Your task to perform on an android device: Open settings on Google Maps Image 0: 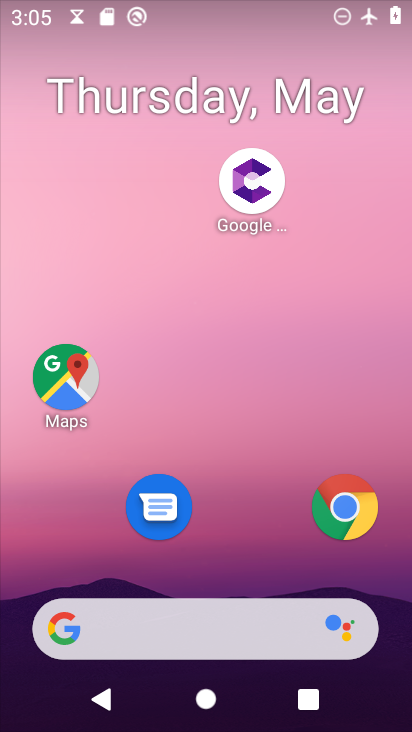
Step 0: click (53, 376)
Your task to perform on an android device: Open settings on Google Maps Image 1: 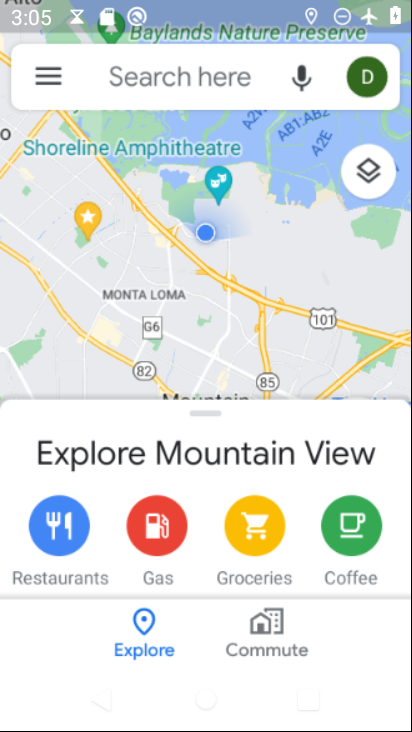
Step 1: click (32, 89)
Your task to perform on an android device: Open settings on Google Maps Image 2: 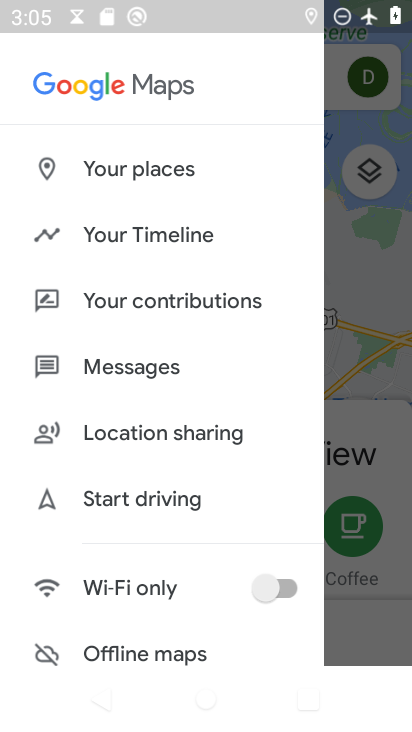
Step 2: drag from (185, 545) to (202, 49)
Your task to perform on an android device: Open settings on Google Maps Image 3: 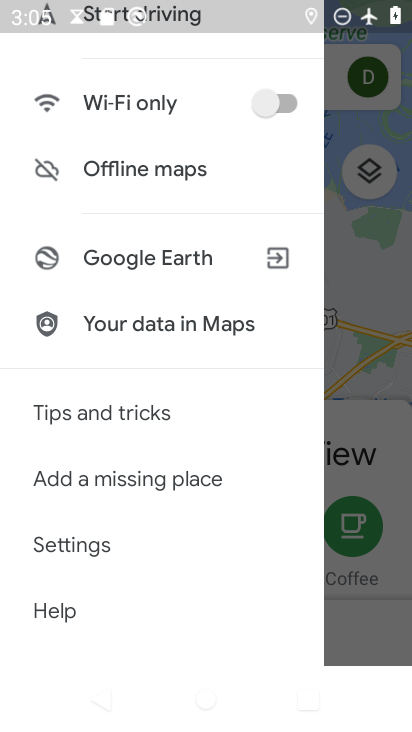
Step 3: click (92, 549)
Your task to perform on an android device: Open settings on Google Maps Image 4: 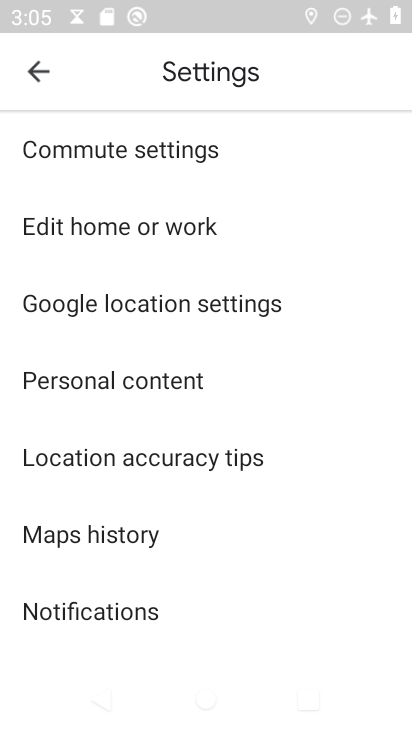
Step 4: task complete